Your task to perform on an android device: all mails in gmail Image 0: 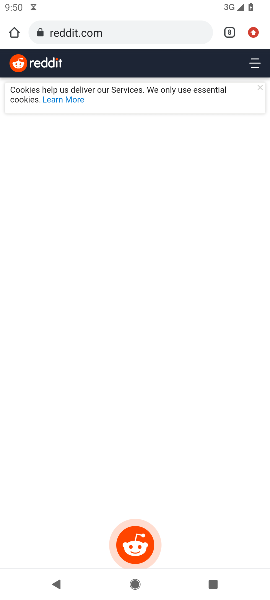
Step 0: press home button
Your task to perform on an android device: all mails in gmail Image 1: 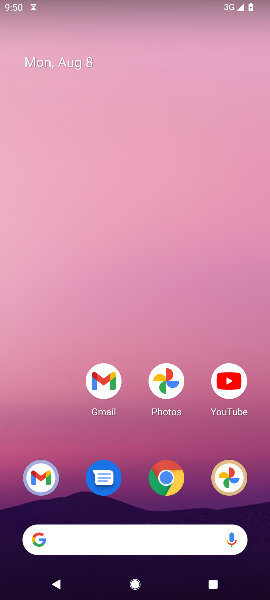
Step 1: click (108, 391)
Your task to perform on an android device: all mails in gmail Image 2: 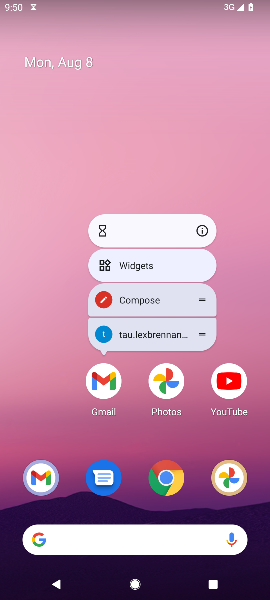
Step 2: click (106, 378)
Your task to perform on an android device: all mails in gmail Image 3: 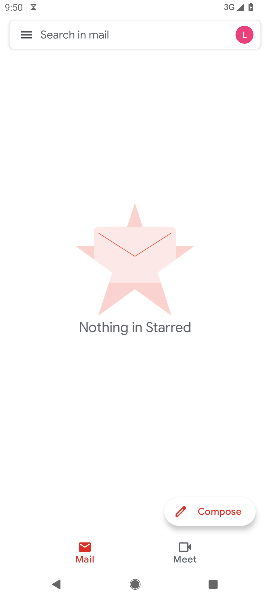
Step 3: click (28, 39)
Your task to perform on an android device: all mails in gmail Image 4: 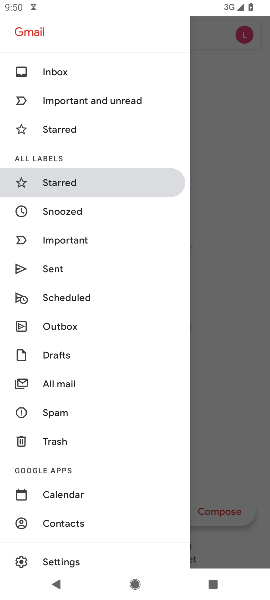
Step 4: click (44, 380)
Your task to perform on an android device: all mails in gmail Image 5: 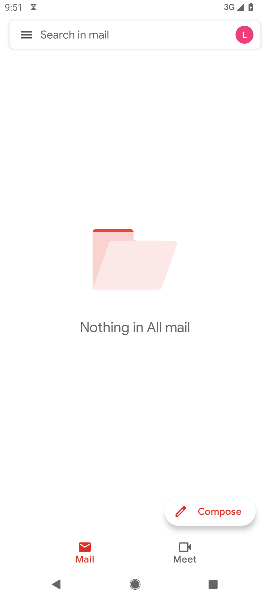
Step 5: task complete